Your task to perform on an android device: remove spam from my inbox in the gmail app Image 0: 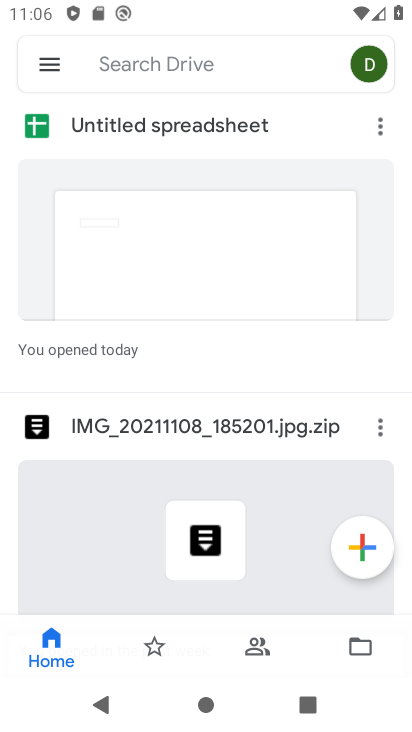
Step 0: press home button
Your task to perform on an android device: remove spam from my inbox in the gmail app Image 1: 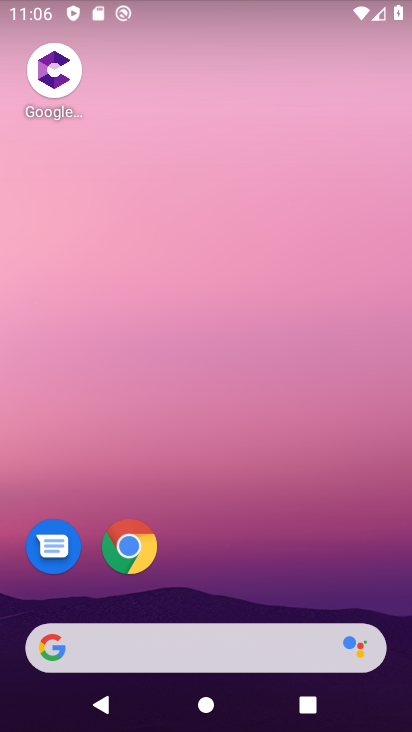
Step 1: drag from (247, 552) to (272, 76)
Your task to perform on an android device: remove spam from my inbox in the gmail app Image 2: 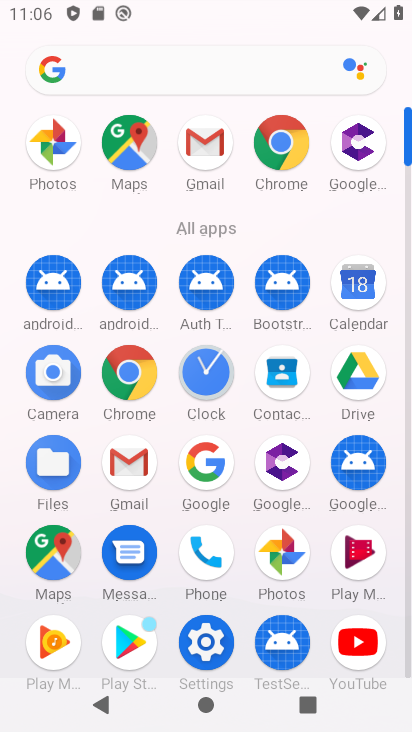
Step 2: click (204, 127)
Your task to perform on an android device: remove spam from my inbox in the gmail app Image 3: 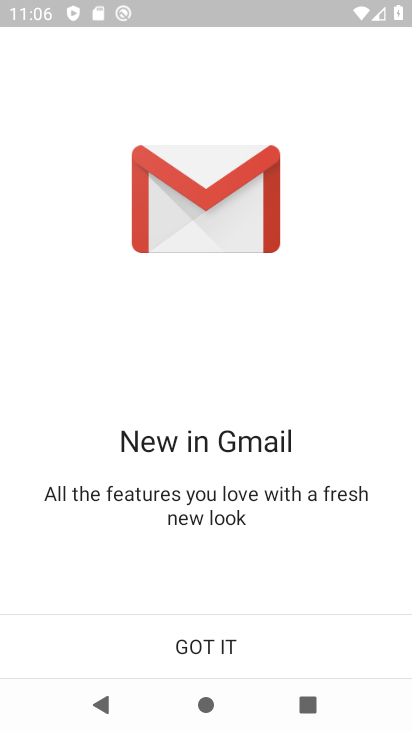
Step 3: click (241, 660)
Your task to perform on an android device: remove spam from my inbox in the gmail app Image 4: 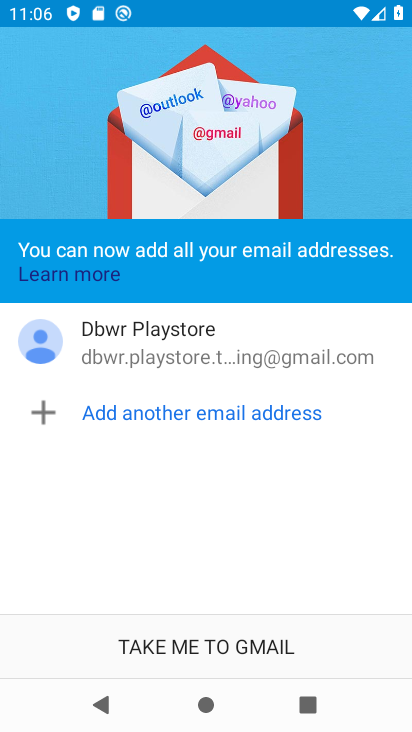
Step 4: click (239, 645)
Your task to perform on an android device: remove spam from my inbox in the gmail app Image 5: 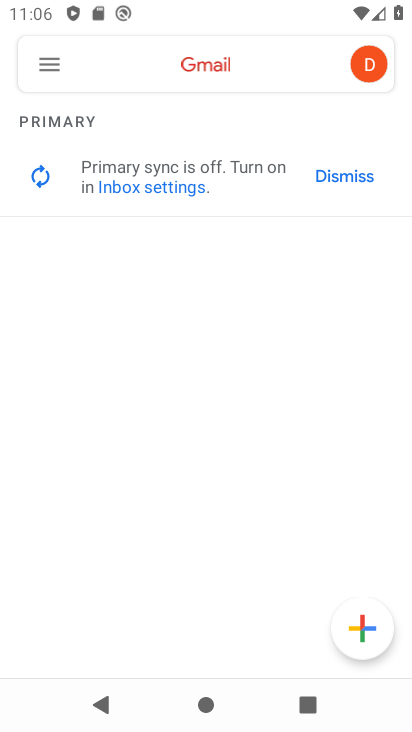
Step 5: click (51, 56)
Your task to perform on an android device: remove spam from my inbox in the gmail app Image 6: 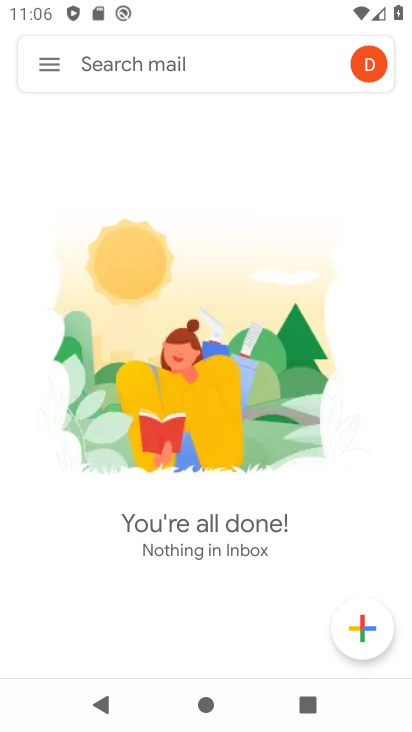
Step 6: drag from (176, 501) to (184, 313)
Your task to perform on an android device: remove spam from my inbox in the gmail app Image 7: 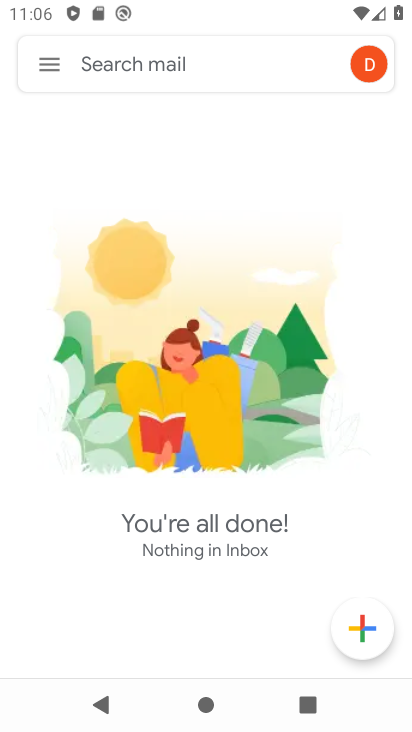
Step 7: click (57, 58)
Your task to perform on an android device: remove spam from my inbox in the gmail app Image 8: 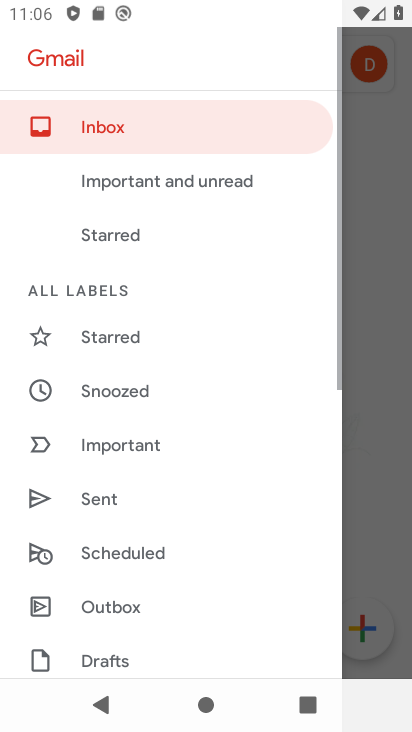
Step 8: click (144, 123)
Your task to perform on an android device: remove spam from my inbox in the gmail app Image 9: 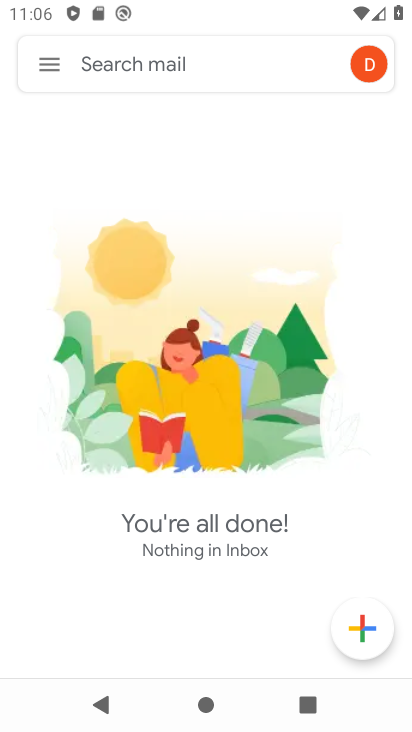
Step 9: task complete